Your task to perform on an android device: change the clock display to digital Image 0: 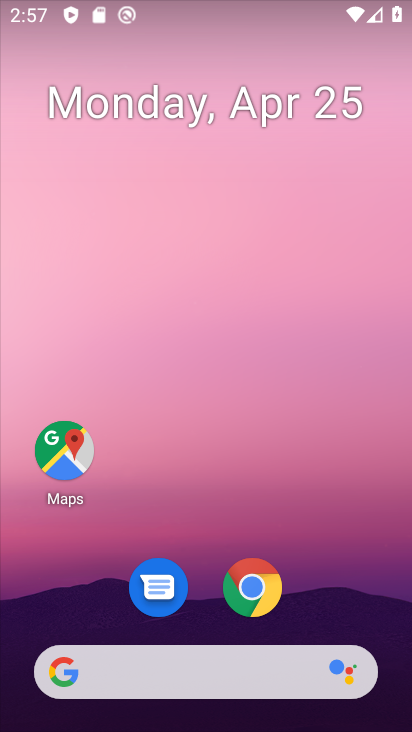
Step 0: drag from (208, 575) to (205, 161)
Your task to perform on an android device: change the clock display to digital Image 1: 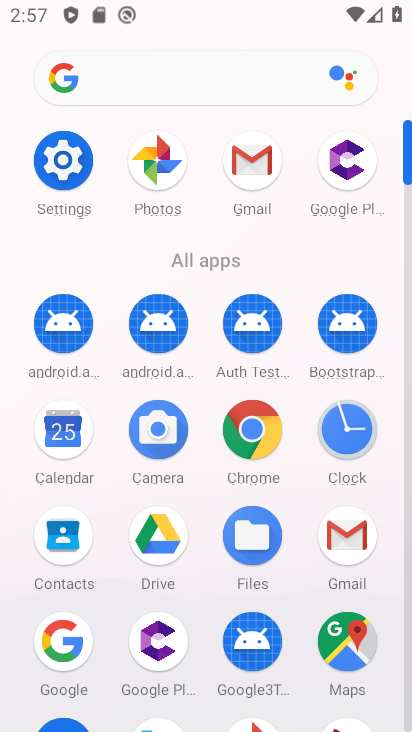
Step 1: click (346, 433)
Your task to perform on an android device: change the clock display to digital Image 2: 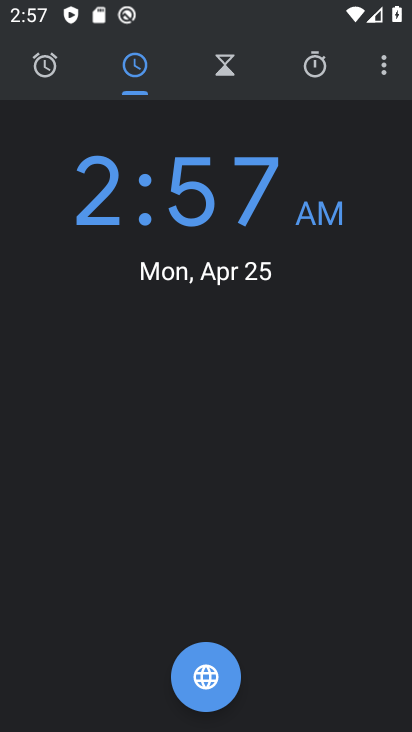
Step 2: click (375, 65)
Your task to perform on an android device: change the clock display to digital Image 3: 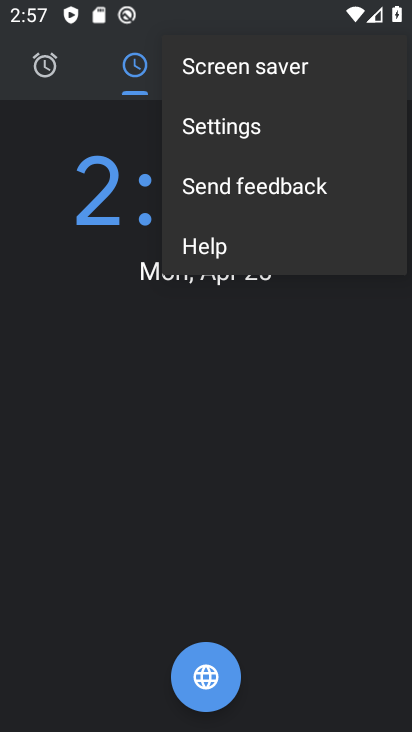
Step 3: click (212, 129)
Your task to perform on an android device: change the clock display to digital Image 4: 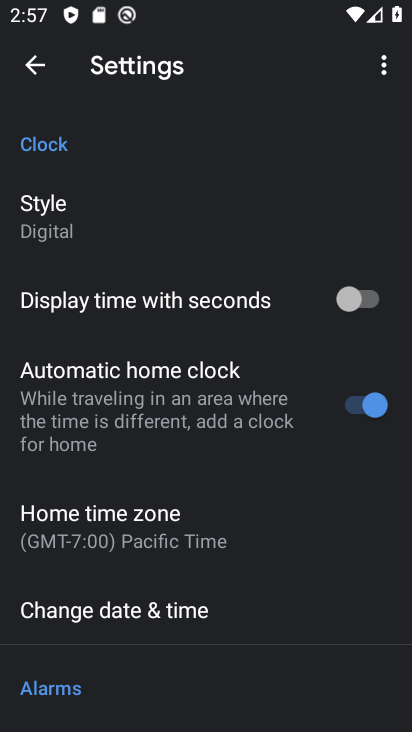
Step 4: drag from (218, 499) to (218, 330)
Your task to perform on an android device: change the clock display to digital Image 5: 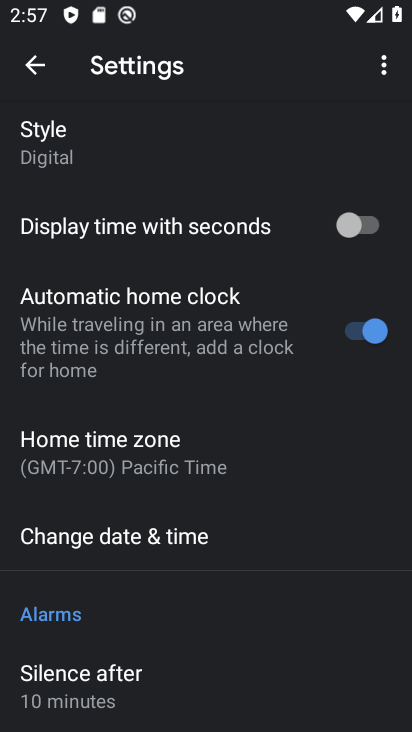
Step 5: click (60, 138)
Your task to perform on an android device: change the clock display to digital Image 6: 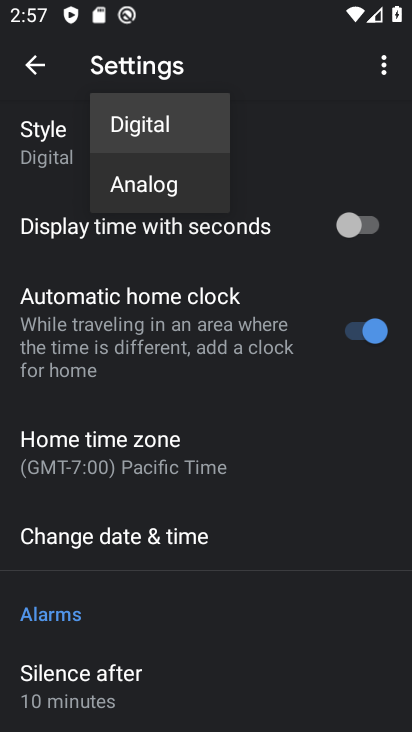
Step 6: click (146, 127)
Your task to perform on an android device: change the clock display to digital Image 7: 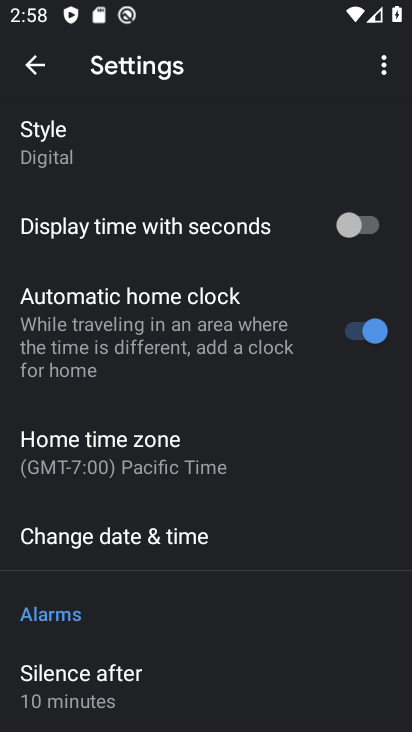
Step 7: task complete